Your task to perform on an android device: toggle notification dots Image 0: 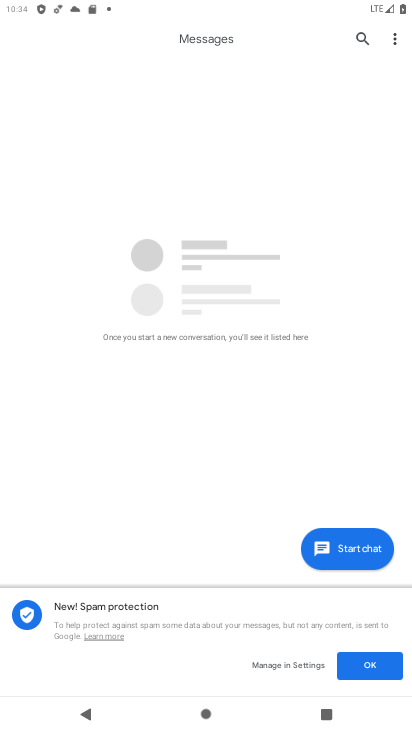
Step 0: press home button
Your task to perform on an android device: toggle notification dots Image 1: 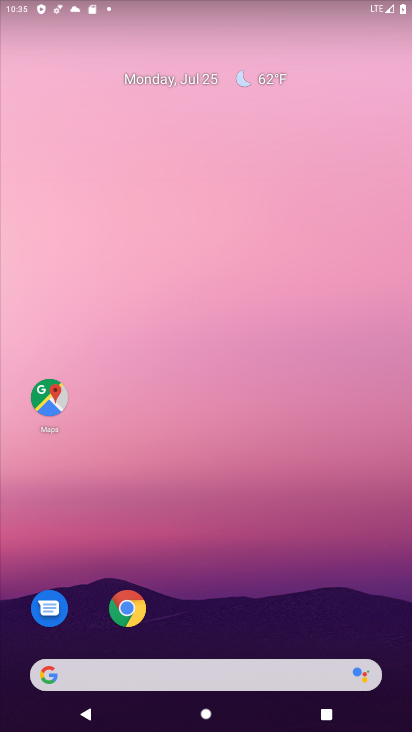
Step 1: drag from (190, 559) to (194, 8)
Your task to perform on an android device: toggle notification dots Image 2: 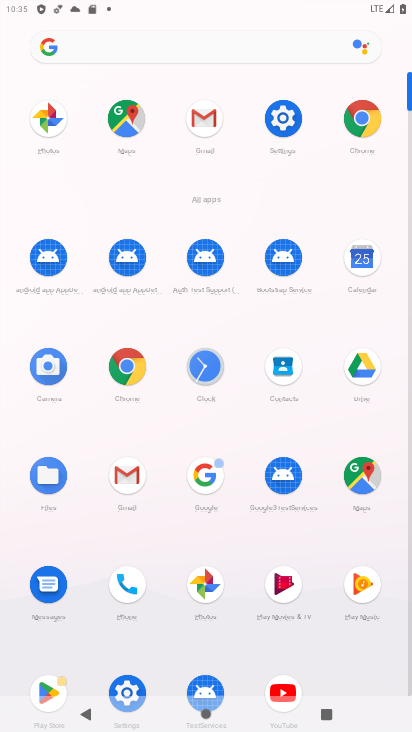
Step 2: click (291, 127)
Your task to perform on an android device: toggle notification dots Image 3: 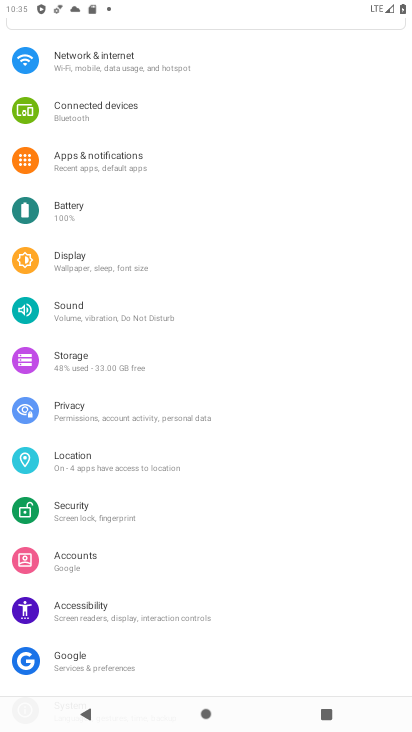
Step 3: click (115, 160)
Your task to perform on an android device: toggle notification dots Image 4: 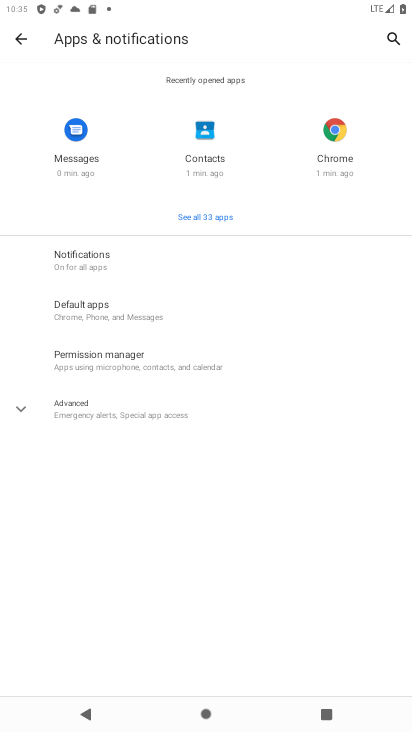
Step 4: click (88, 257)
Your task to perform on an android device: toggle notification dots Image 5: 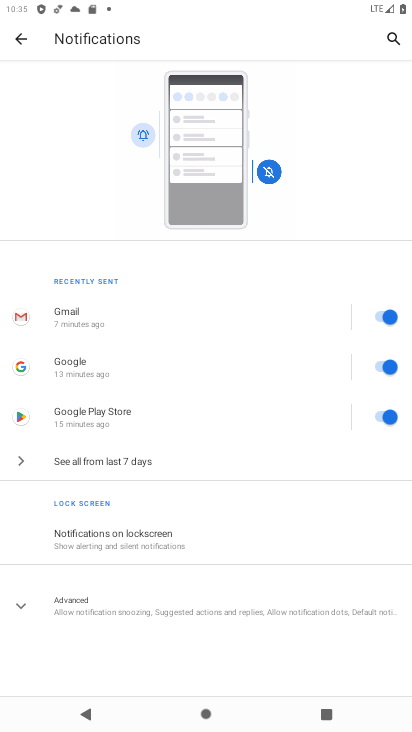
Step 5: click (91, 606)
Your task to perform on an android device: toggle notification dots Image 6: 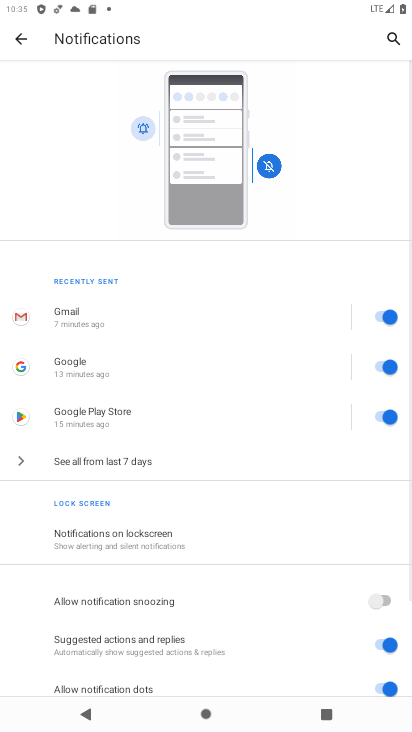
Step 6: drag from (223, 619) to (220, 439)
Your task to perform on an android device: toggle notification dots Image 7: 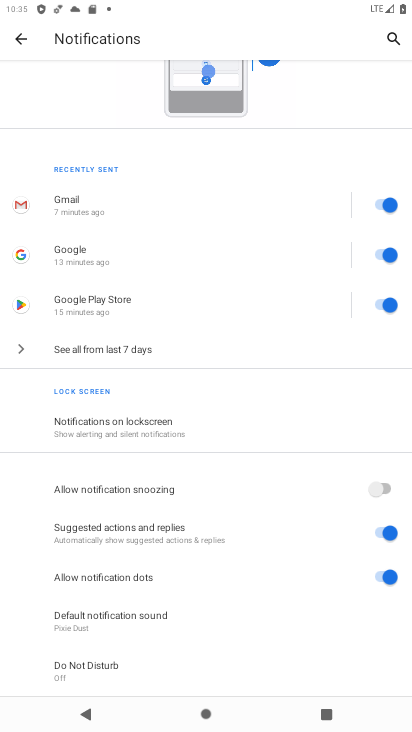
Step 7: click (368, 577)
Your task to perform on an android device: toggle notification dots Image 8: 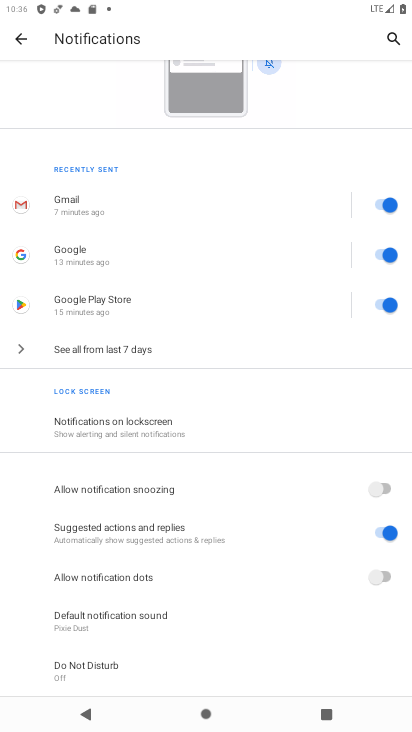
Step 8: task complete